Your task to perform on an android device: What's the weather going to be tomorrow? Image 0: 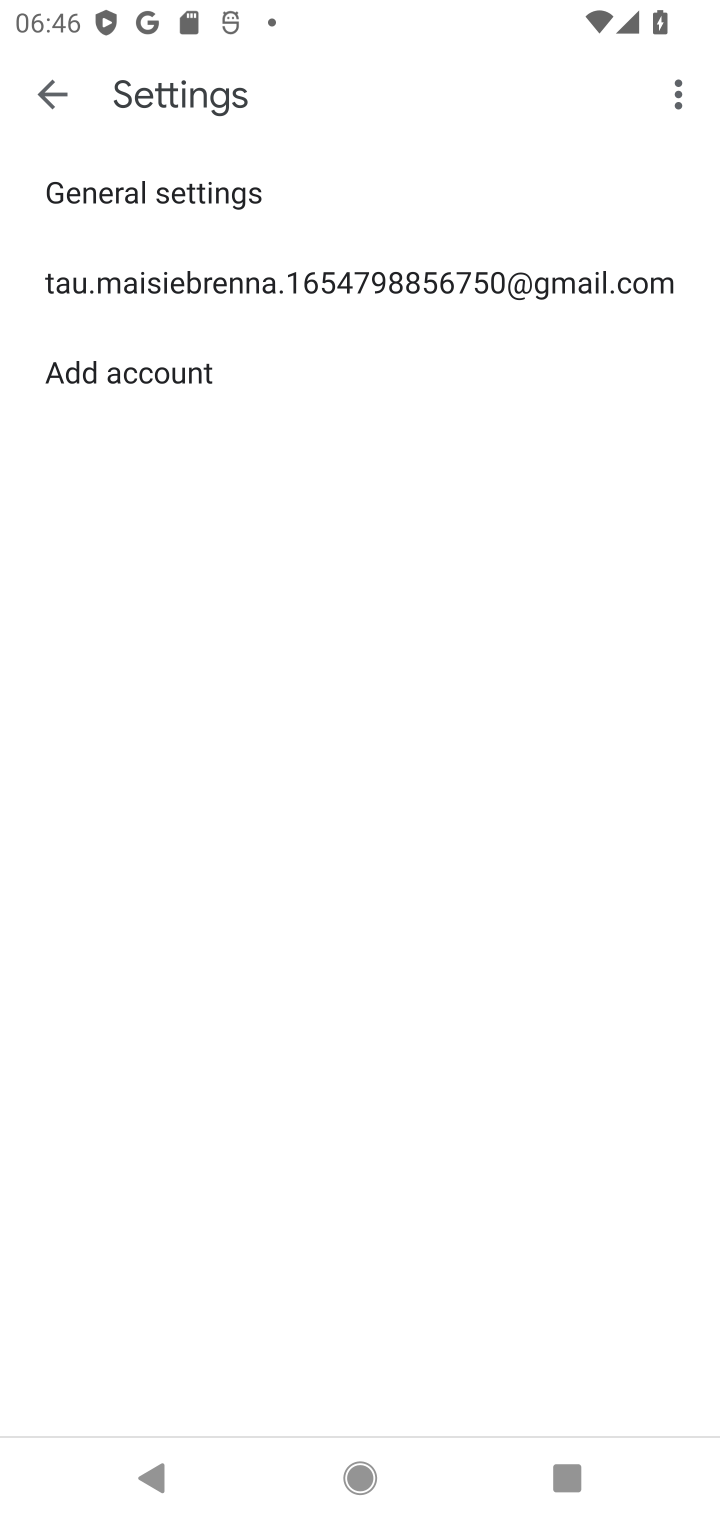
Step 0: press home button
Your task to perform on an android device: What's the weather going to be tomorrow? Image 1: 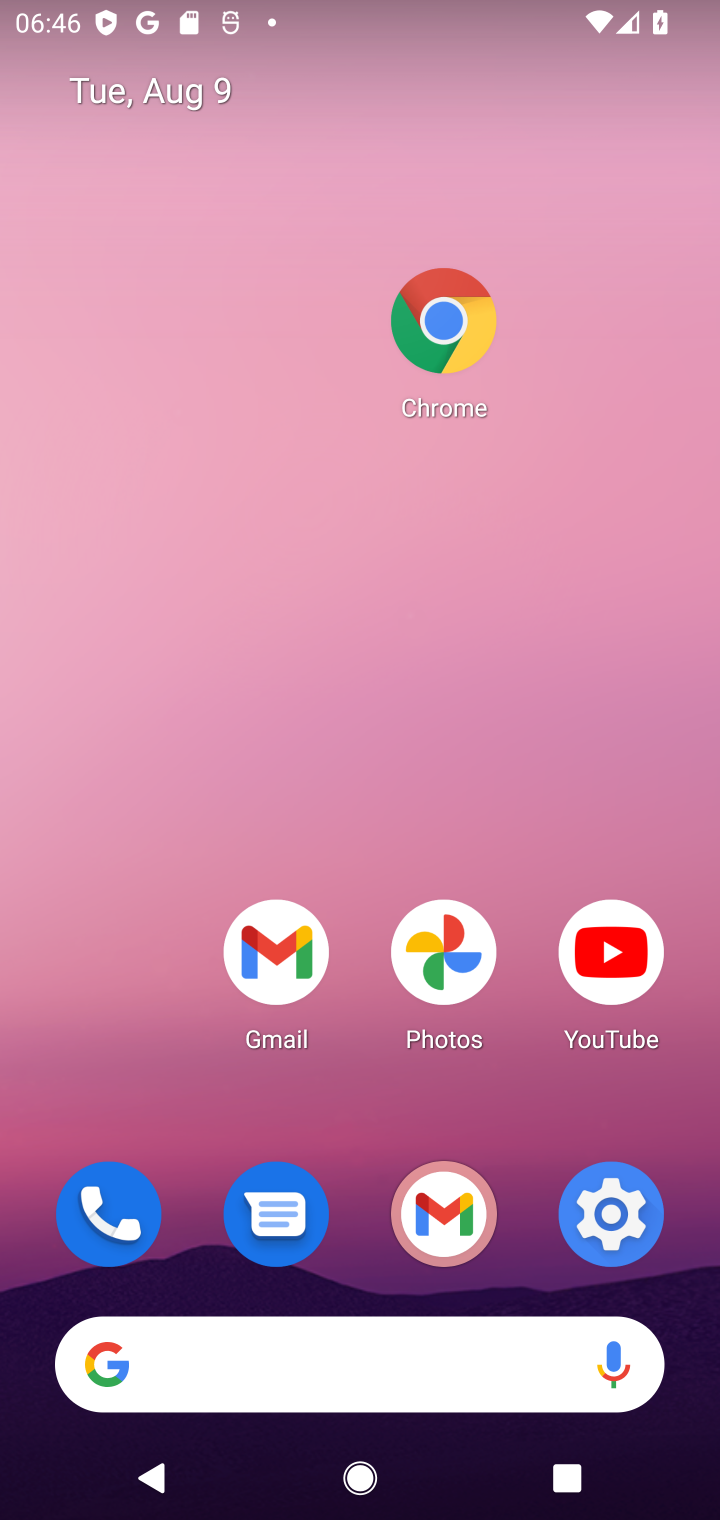
Step 1: click (375, 1372)
Your task to perform on an android device: What's the weather going to be tomorrow? Image 2: 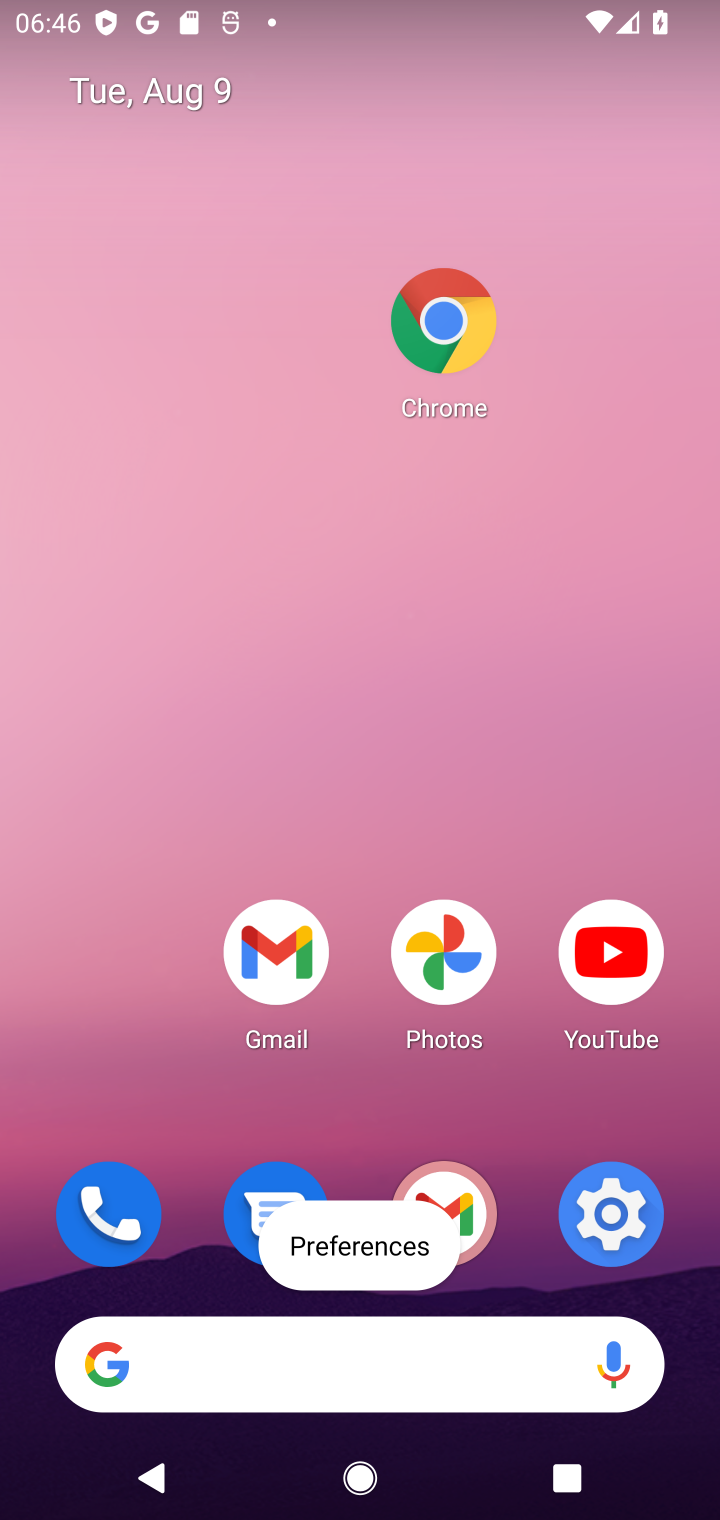
Step 2: click (316, 1375)
Your task to perform on an android device: What's the weather going to be tomorrow? Image 3: 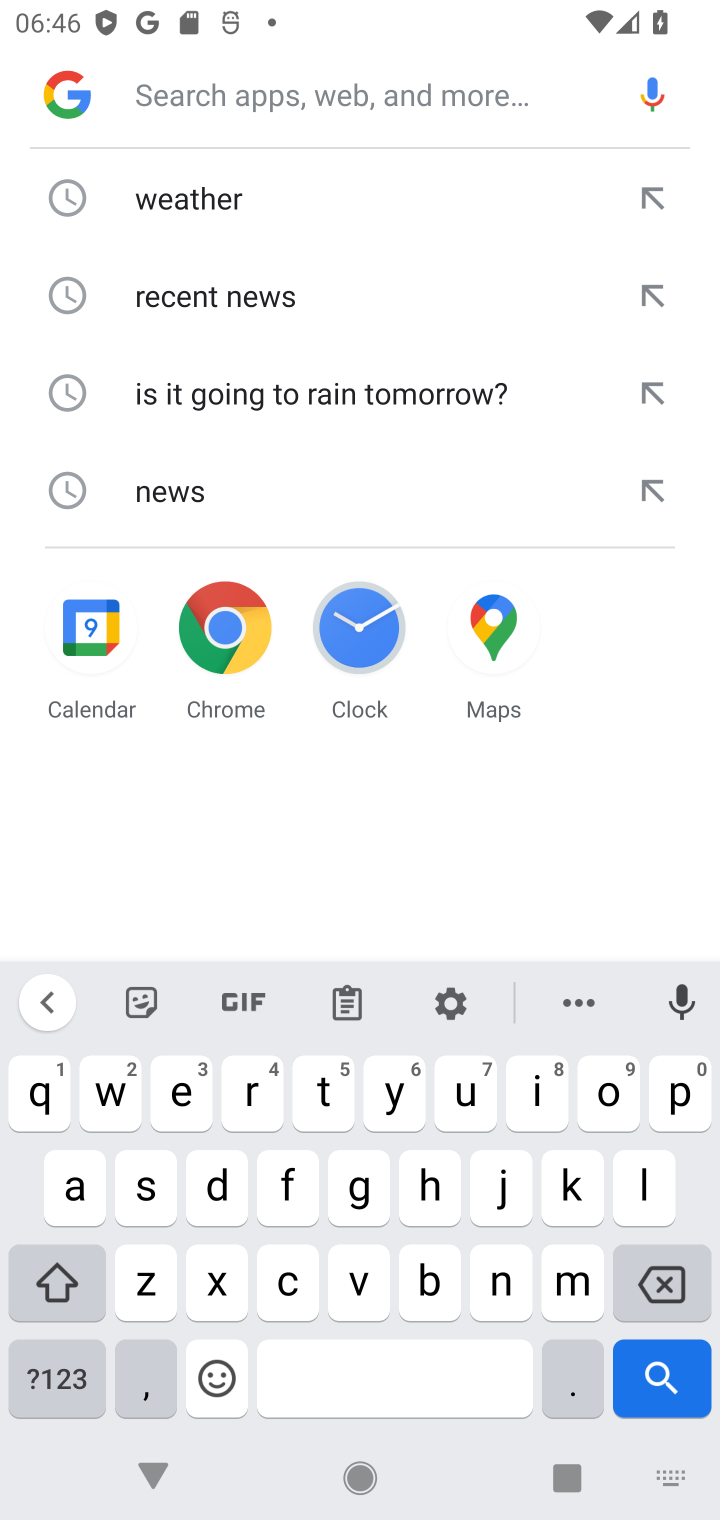
Step 3: click (228, 208)
Your task to perform on an android device: What's the weather going to be tomorrow? Image 4: 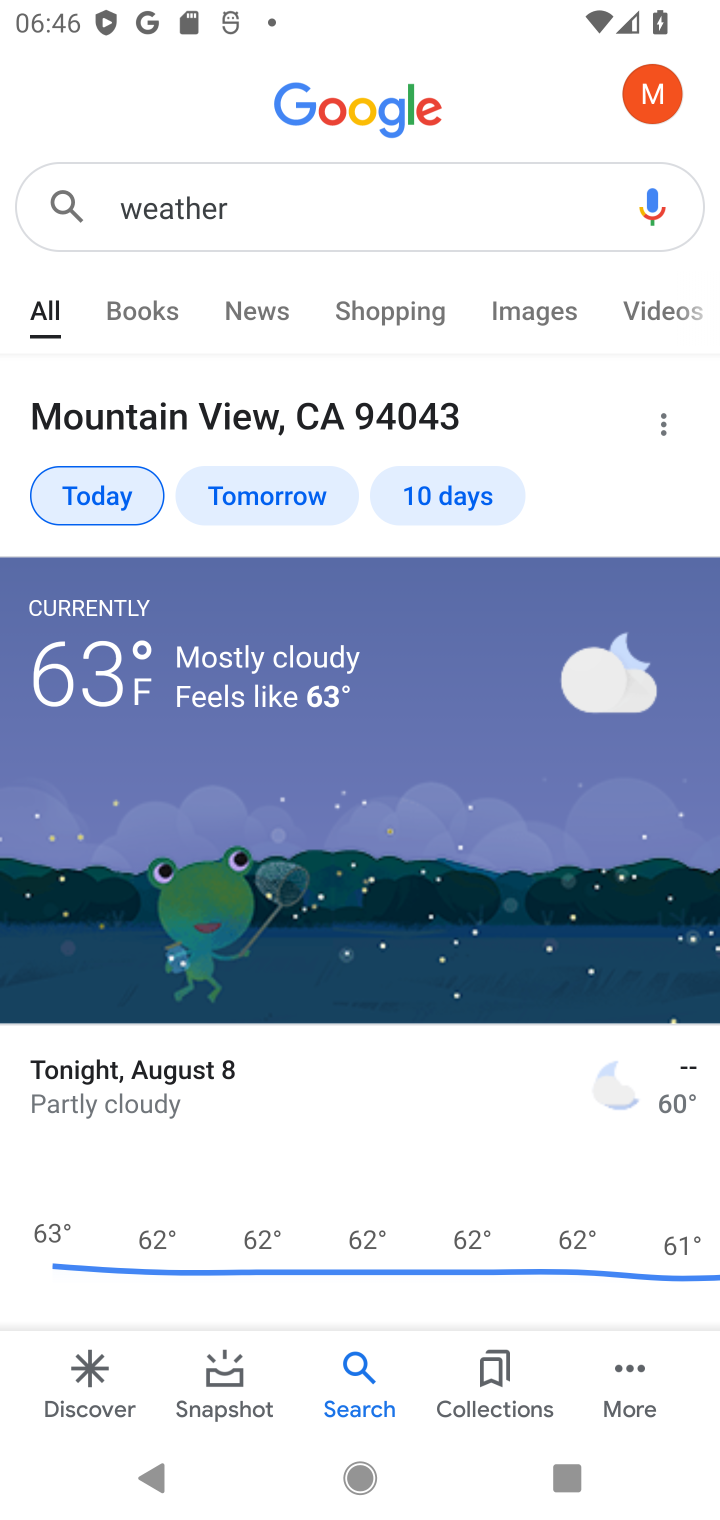
Step 4: click (288, 485)
Your task to perform on an android device: What's the weather going to be tomorrow? Image 5: 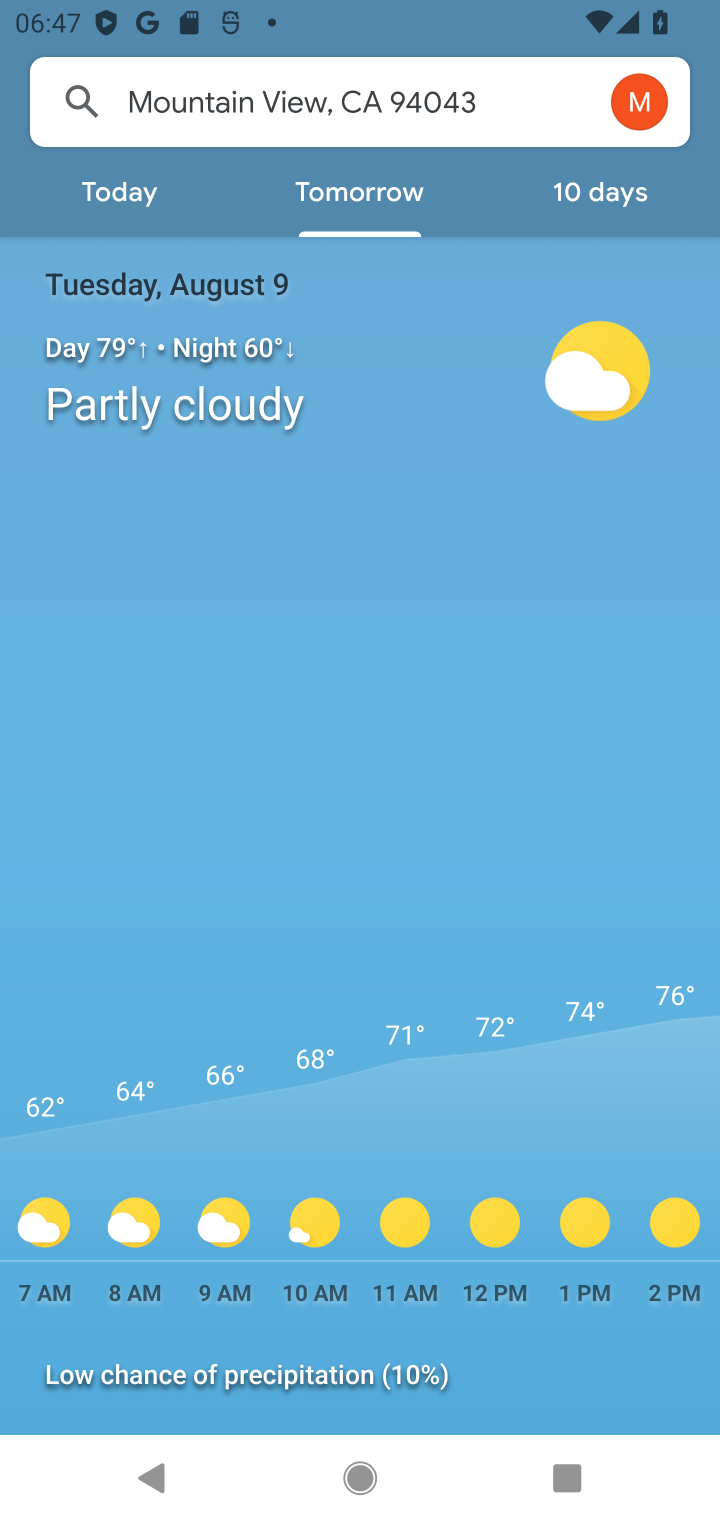
Step 5: task complete